Your task to perform on an android device: turn on the 24-hour format for clock Image 0: 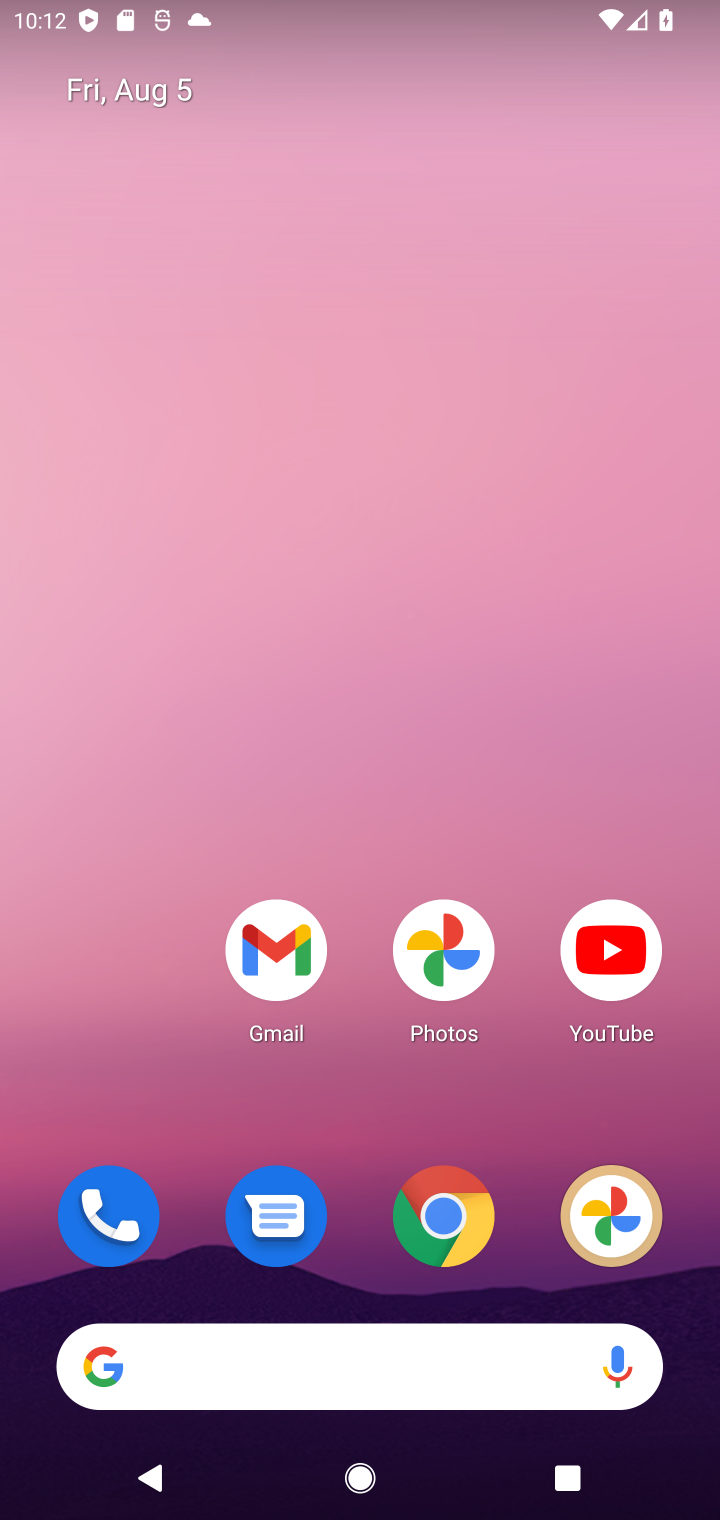
Step 0: drag from (485, 1366) to (438, 73)
Your task to perform on an android device: turn on the 24-hour format for clock Image 1: 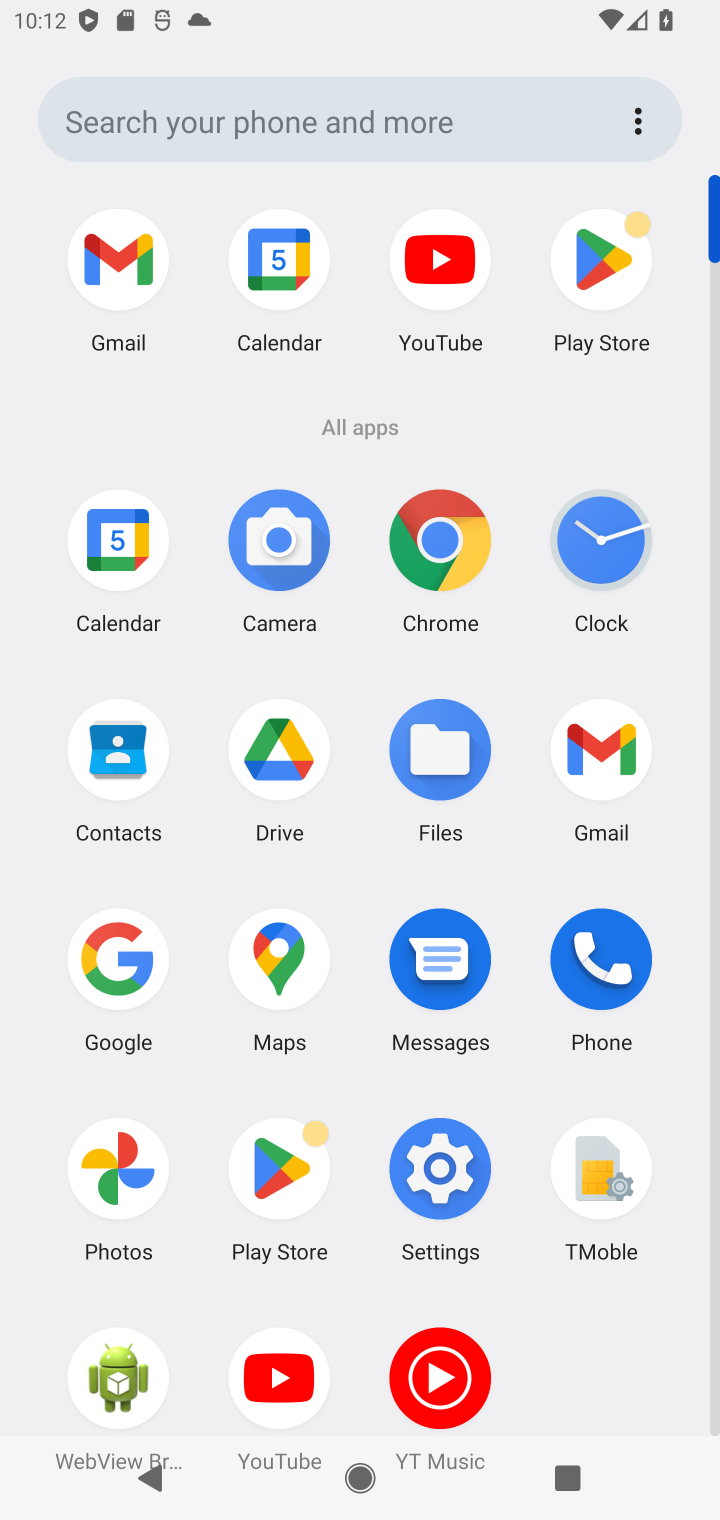
Step 1: click (597, 551)
Your task to perform on an android device: turn on the 24-hour format for clock Image 2: 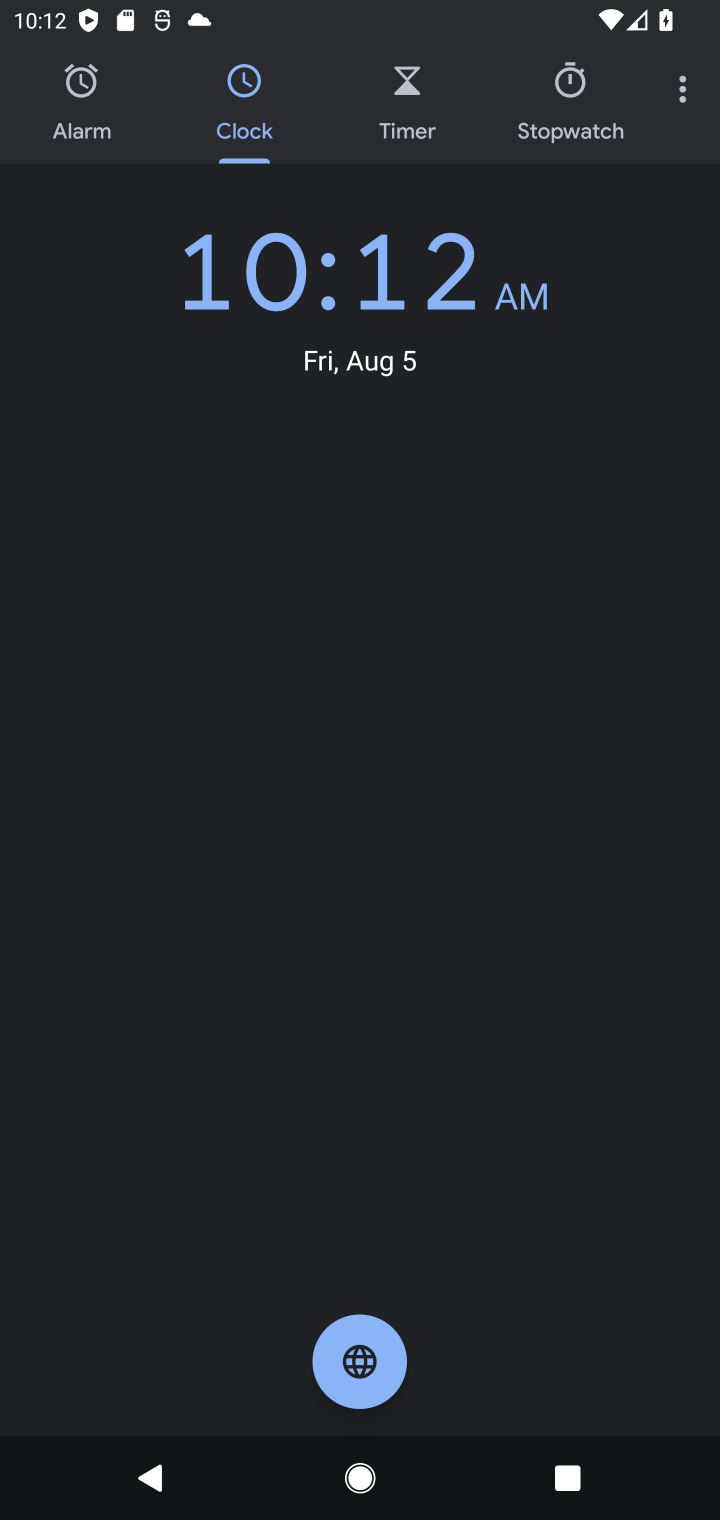
Step 2: click (673, 90)
Your task to perform on an android device: turn on the 24-hour format for clock Image 3: 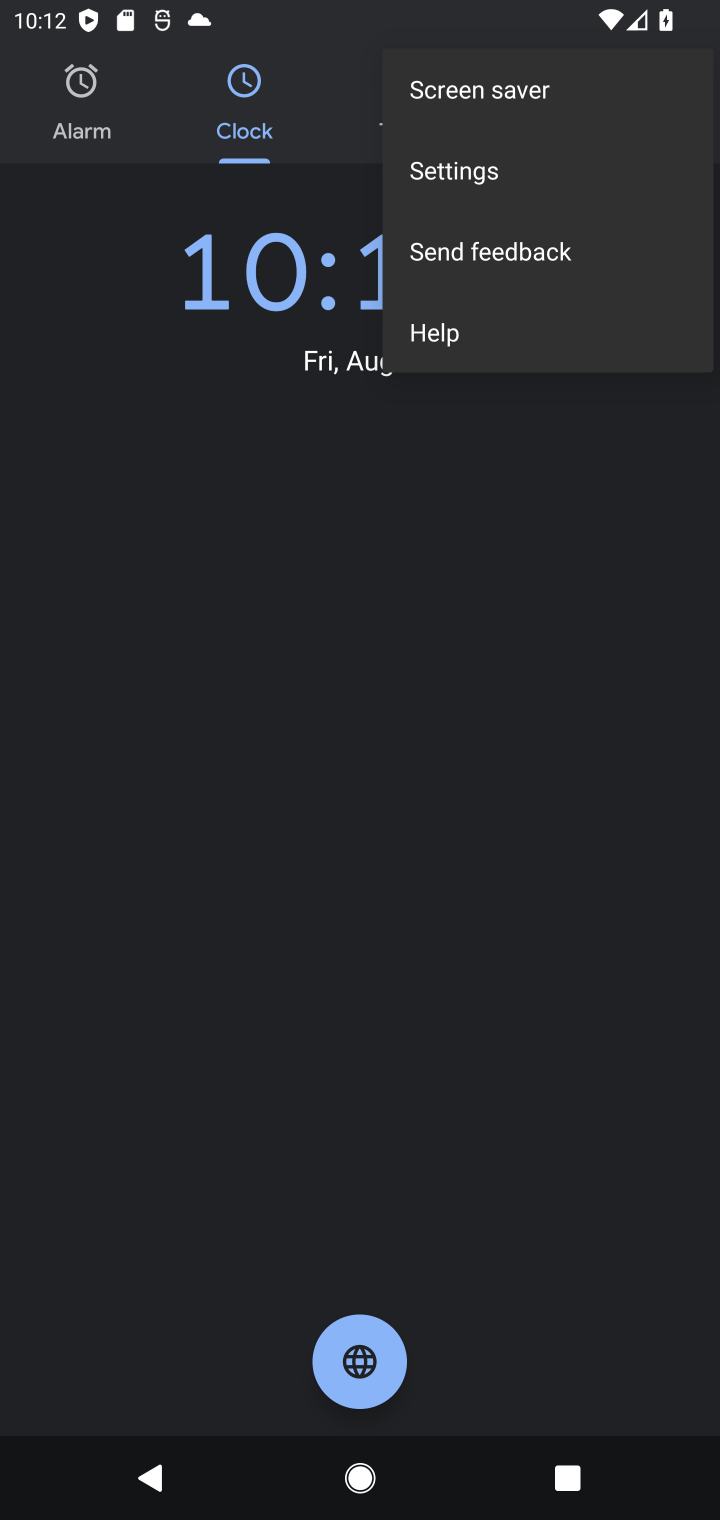
Step 3: click (492, 177)
Your task to perform on an android device: turn on the 24-hour format for clock Image 4: 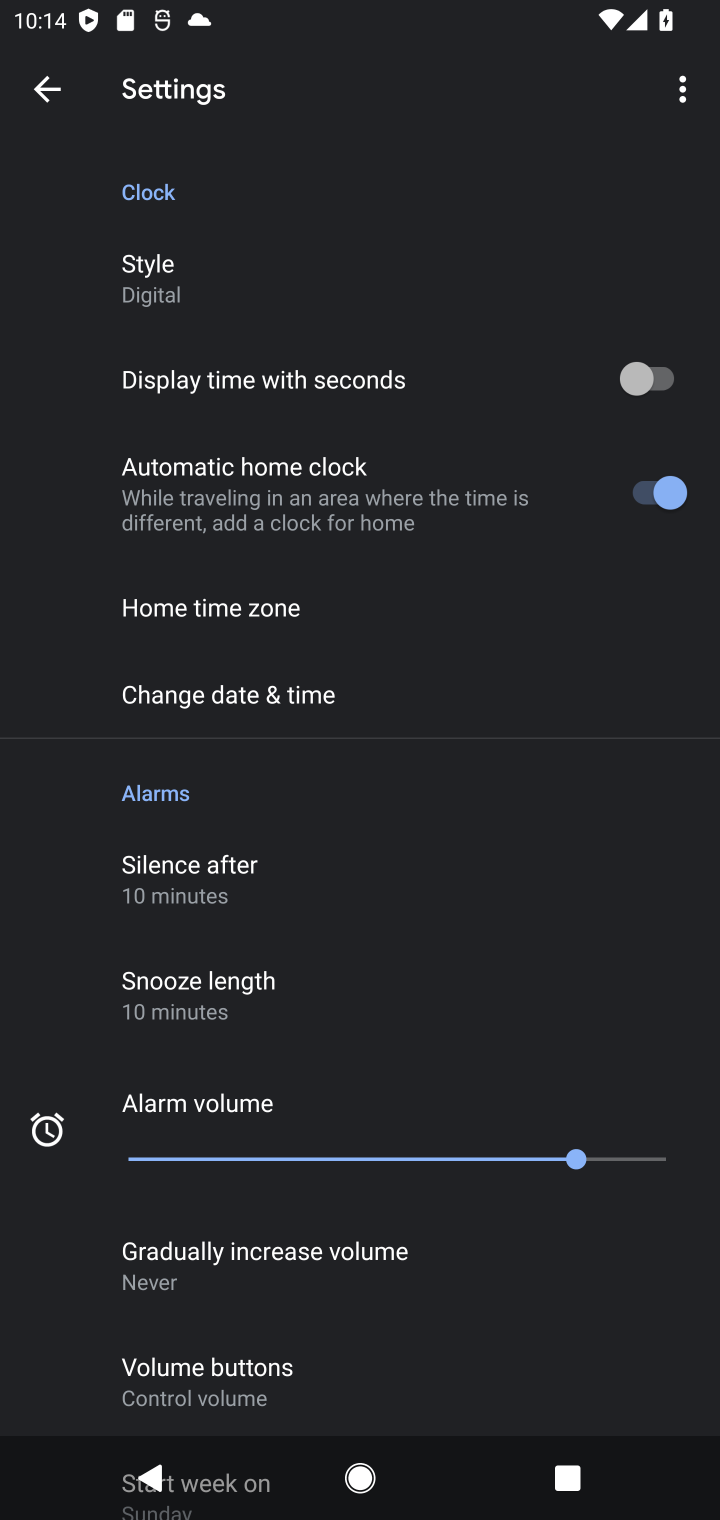
Step 4: click (330, 685)
Your task to perform on an android device: turn on the 24-hour format for clock Image 5: 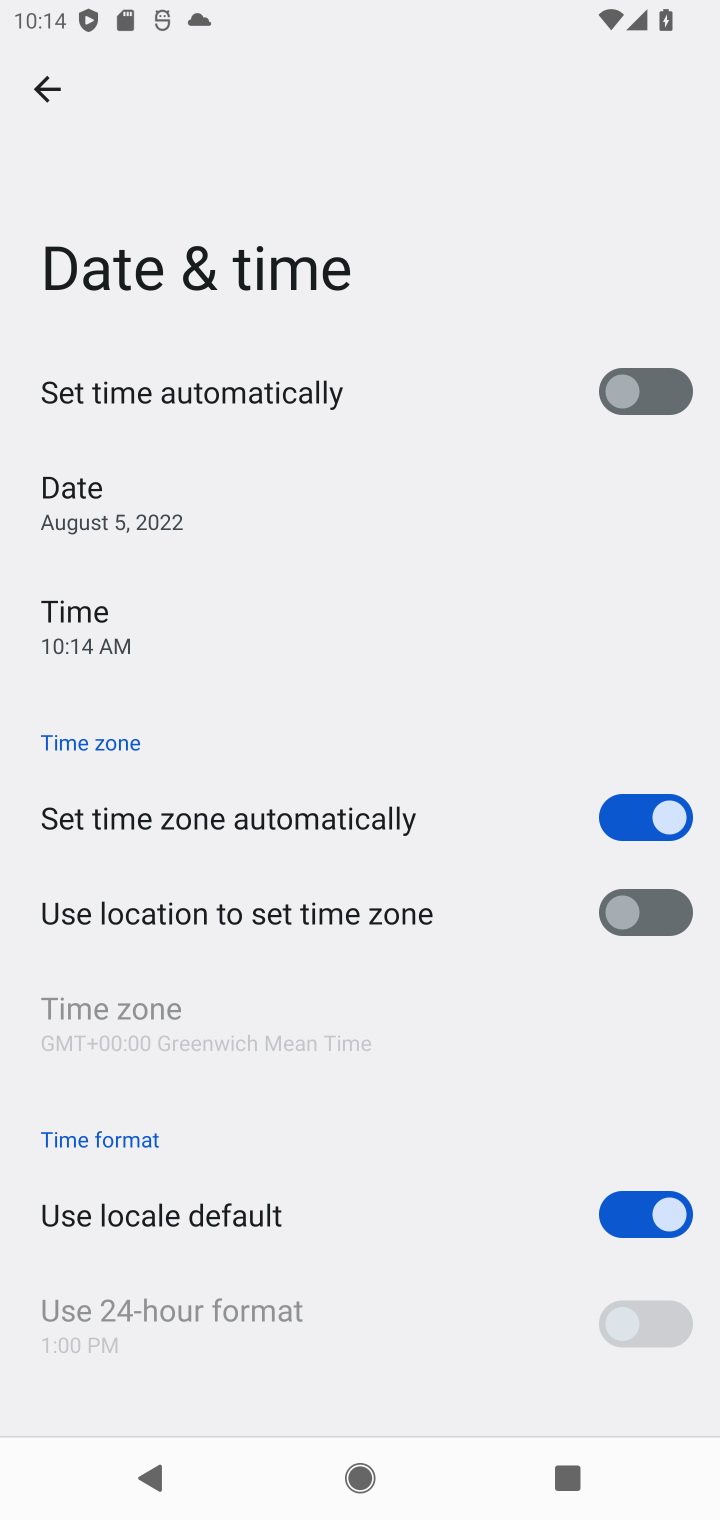
Step 5: press back button
Your task to perform on an android device: turn on the 24-hour format for clock Image 6: 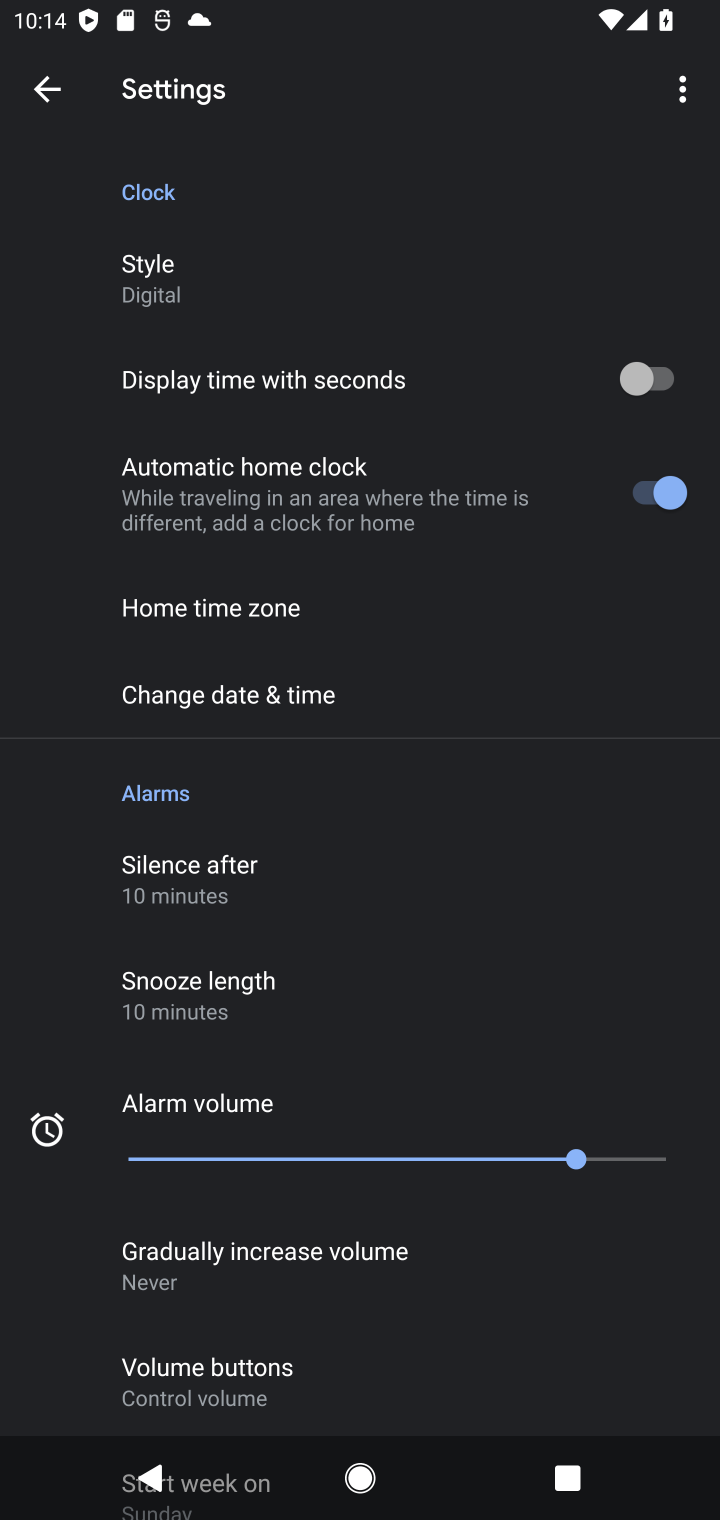
Step 6: click (330, 687)
Your task to perform on an android device: turn on the 24-hour format for clock Image 7: 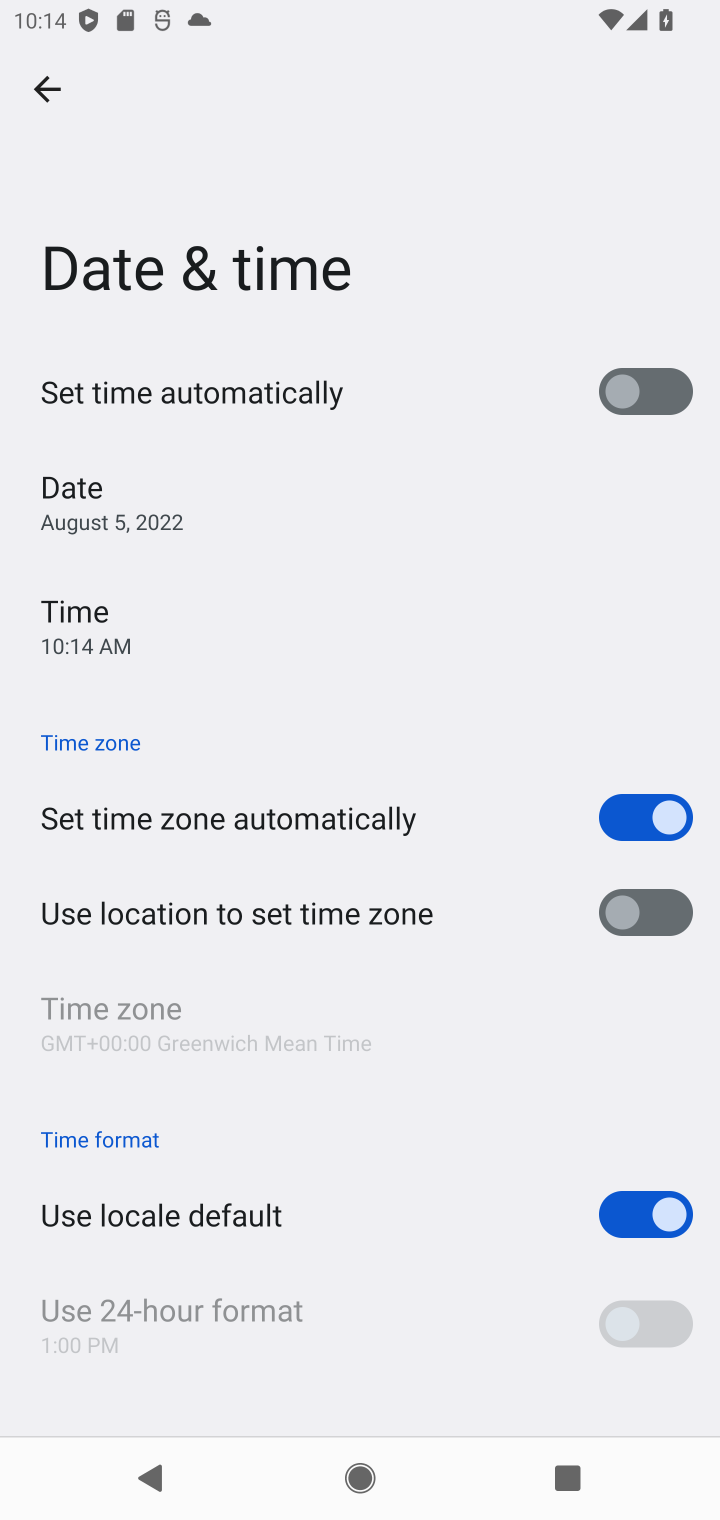
Step 7: click (644, 1222)
Your task to perform on an android device: turn on the 24-hour format for clock Image 8: 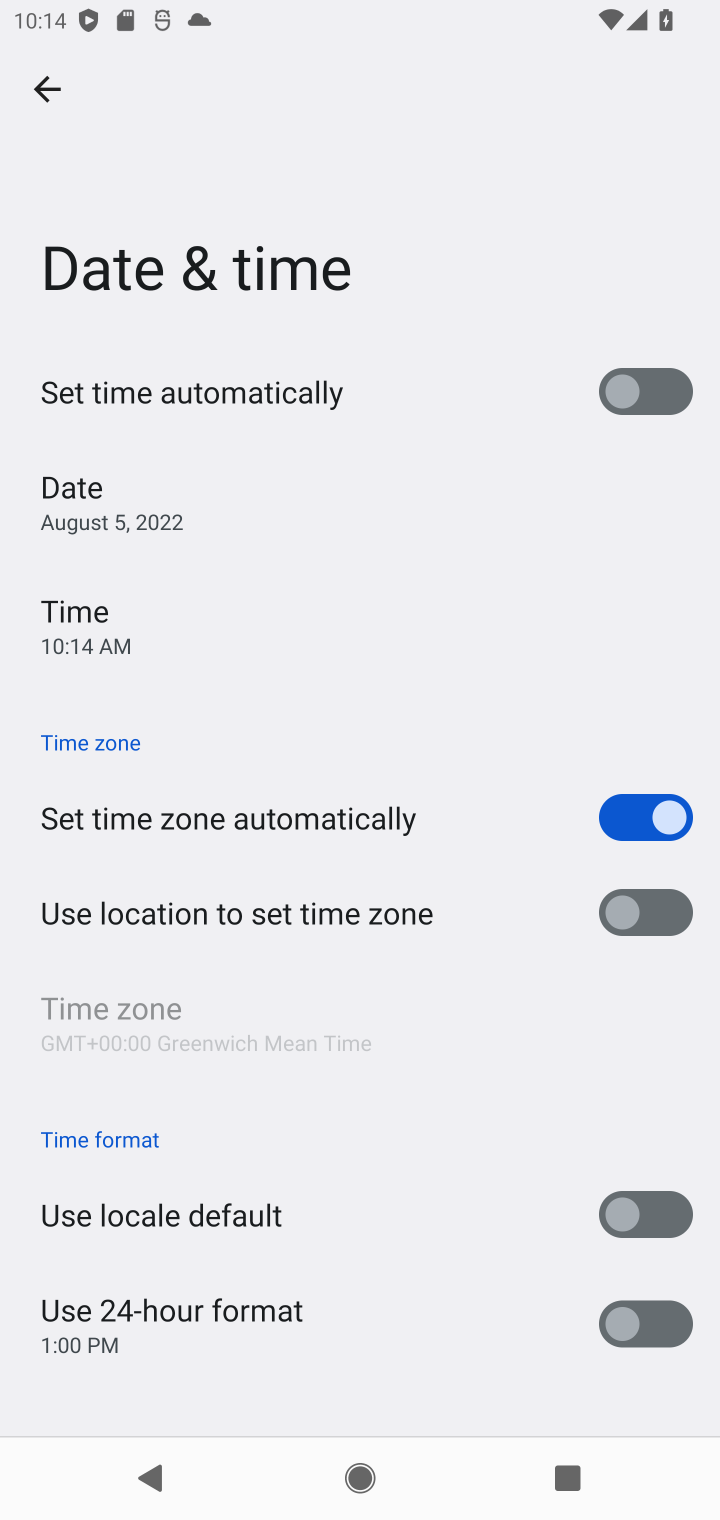
Step 8: click (666, 1317)
Your task to perform on an android device: turn on the 24-hour format for clock Image 9: 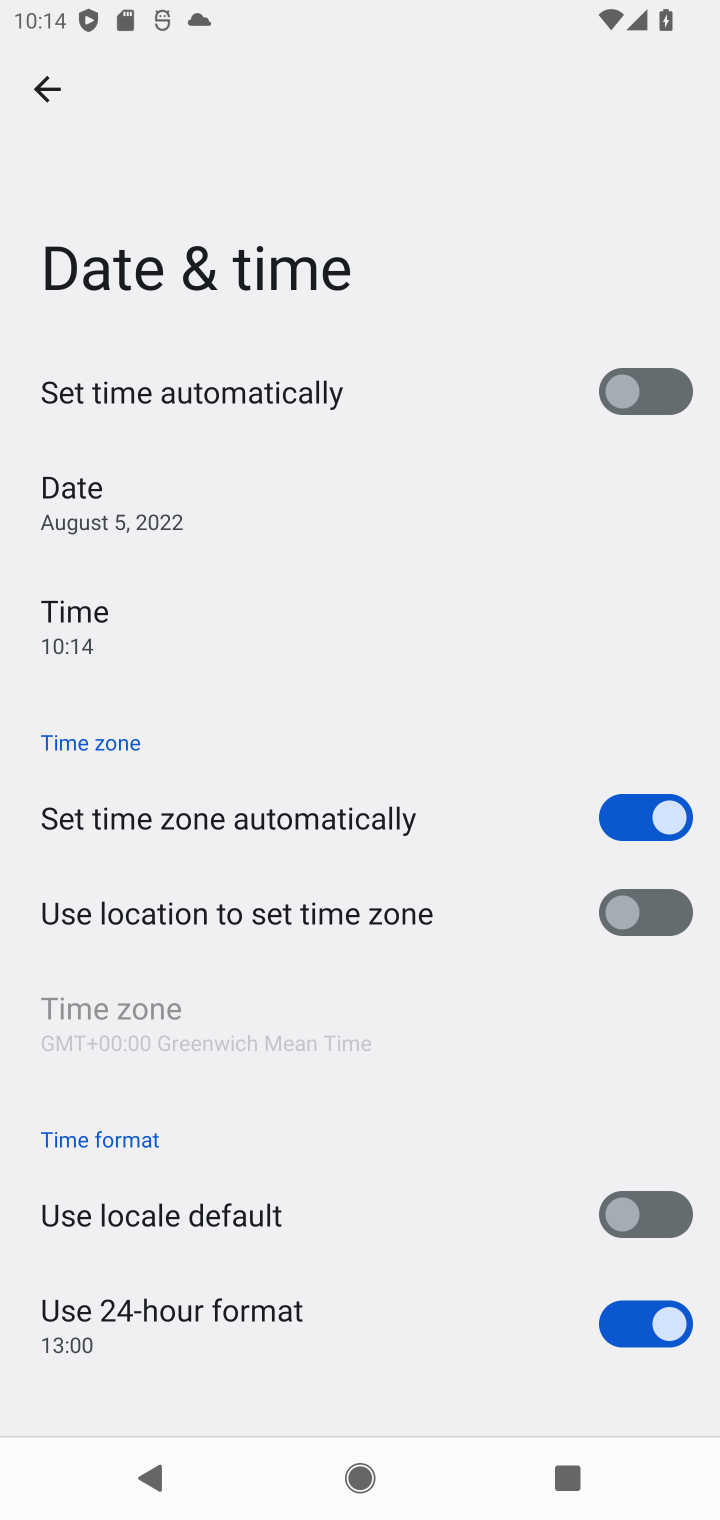
Step 9: task complete